Your task to perform on an android device: Go to eBay Image 0: 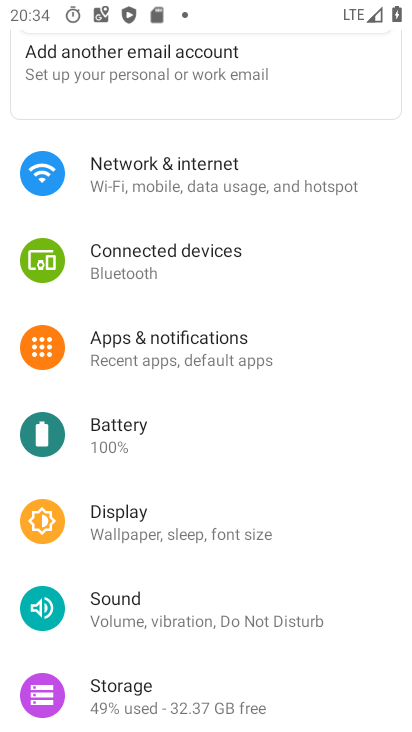
Step 0: press home button
Your task to perform on an android device: Go to eBay Image 1: 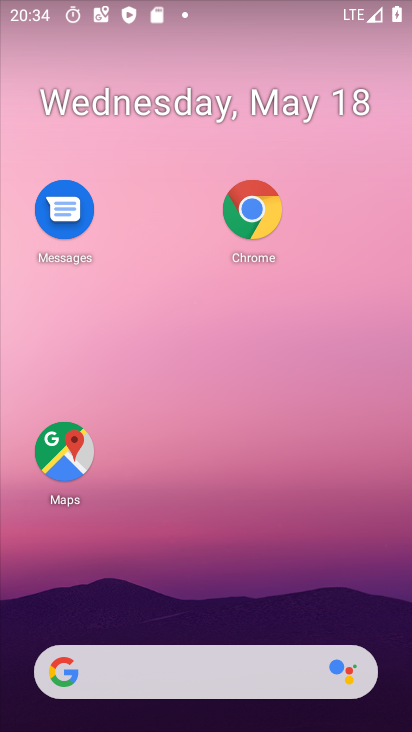
Step 1: click (250, 209)
Your task to perform on an android device: Go to eBay Image 2: 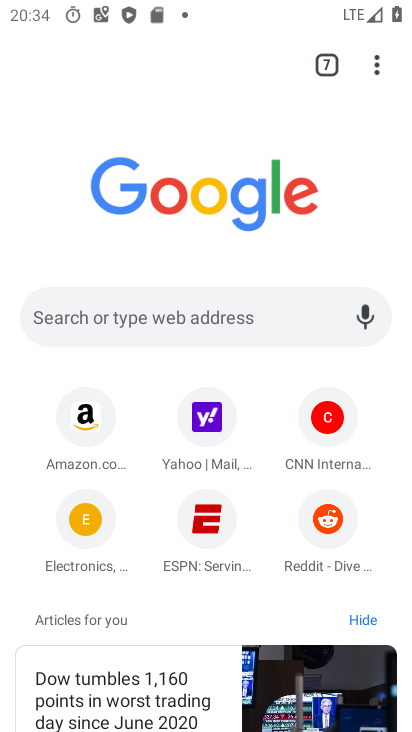
Step 2: click (191, 312)
Your task to perform on an android device: Go to eBay Image 3: 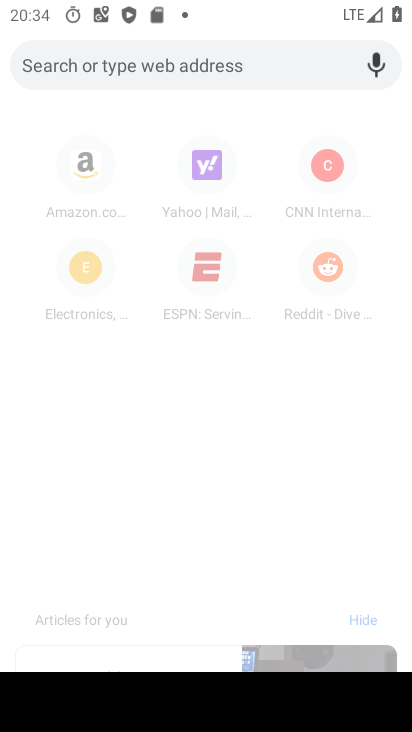
Step 3: type "ebay"
Your task to perform on an android device: Go to eBay Image 4: 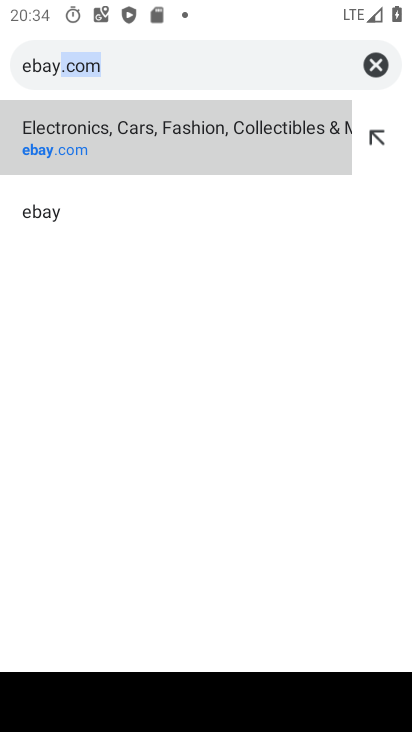
Step 4: click (178, 114)
Your task to perform on an android device: Go to eBay Image 5: 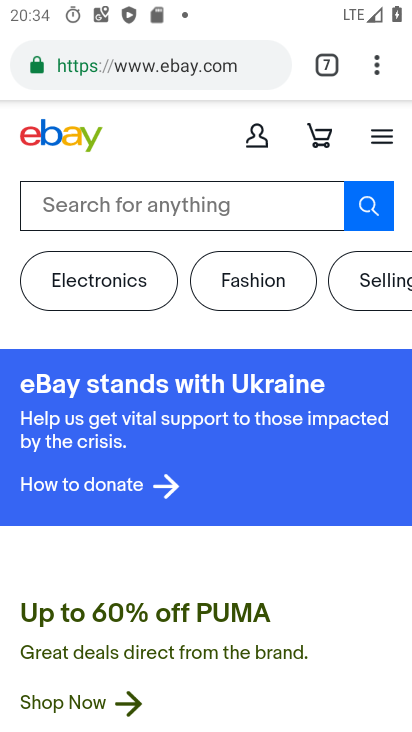
Step 5: task complete